Your task to perform on an android device: Go to internet settings Image 0: 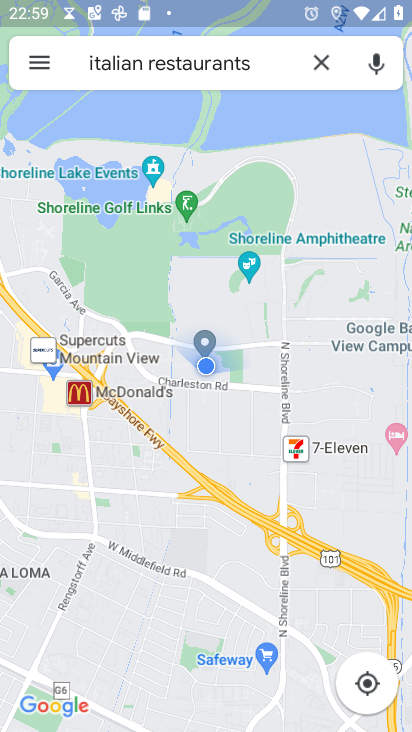
Step 0: press home button
Your task to perform on an android device: Go to internet settings Image 1: 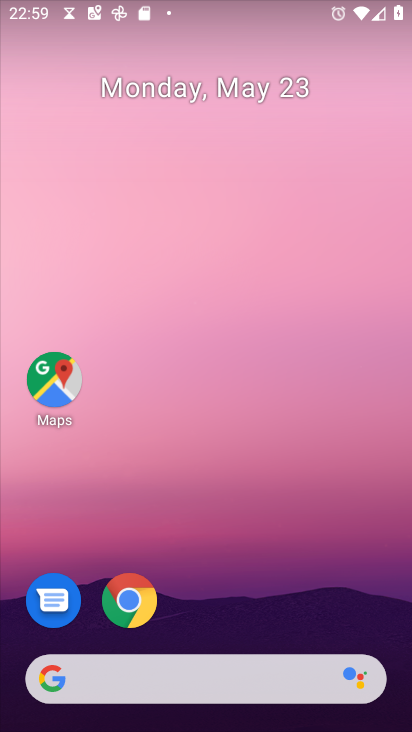
Step 1: drag from (211, 729) to (216, 214)
Your task to perform on an android device: Go to internet settings Image 2: 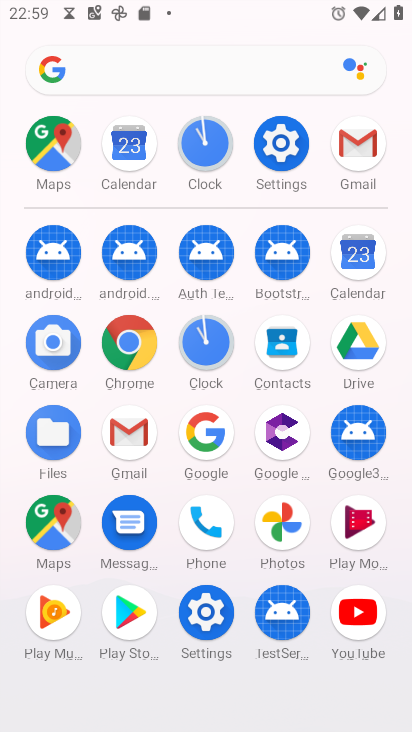
Step 2: click (283, 136)
Your task to perform on an android device: Go to internet settings Image 3: 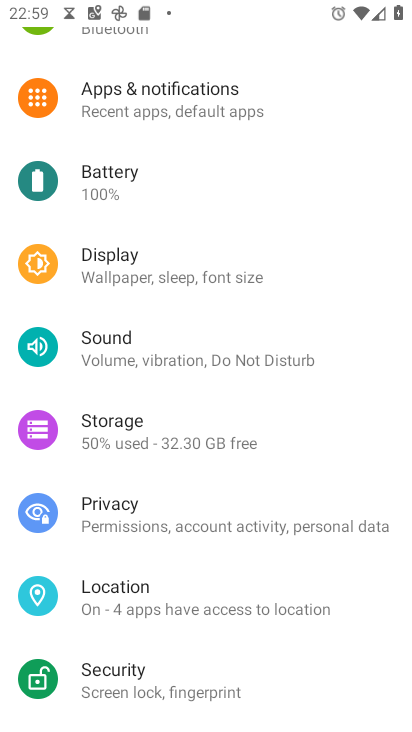
Step 3: drag from (213, 136) to (219, 544)
Your task to perform on an android device: Go to internet settings Image 4: 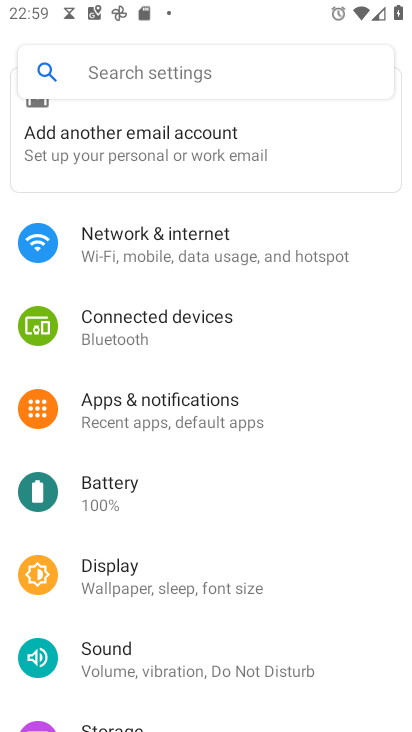
Step 4: click (145, 242)
Your task to perform on an android device: Go to internet settings Image 5: 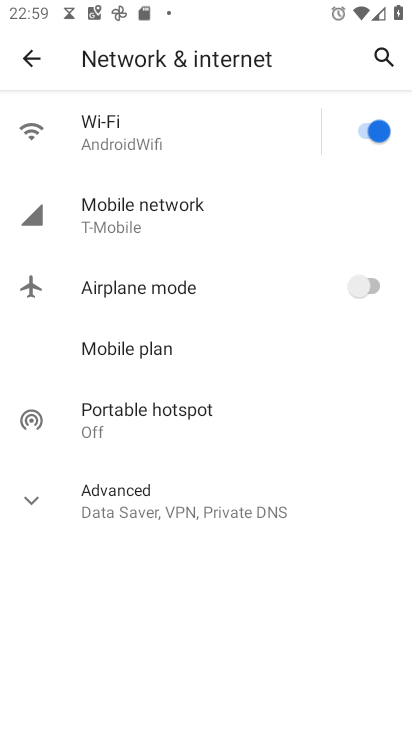
Step 5: click (141, 202)
Your task to perform on an android device: Go to internet settings Image 6: 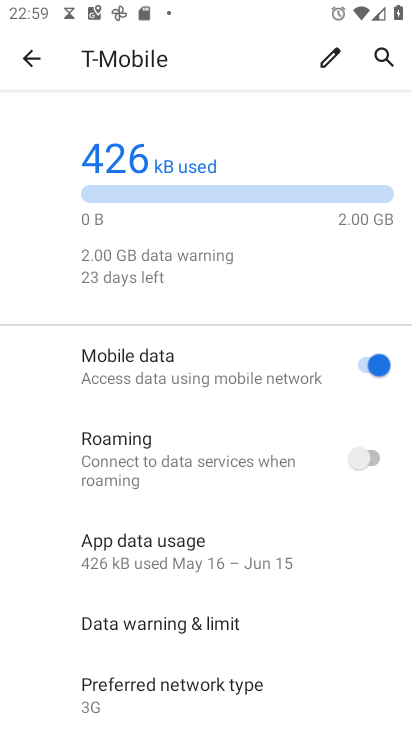
Step 6: task complete